Your task to perform on an android device: check google app version Image 0: 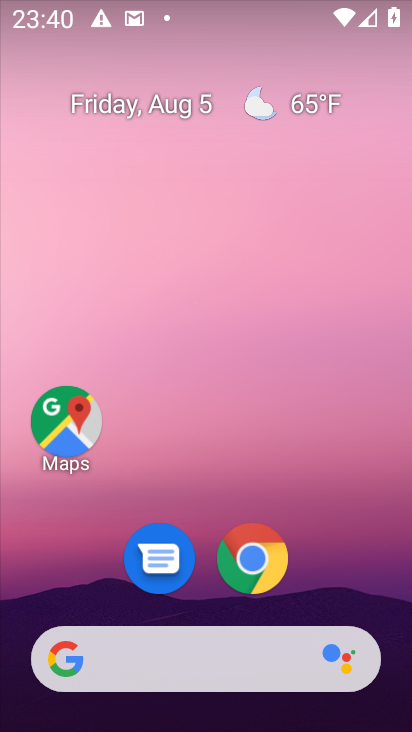
Step 0: drag from (330, 531) to (348, 171)
Your task to perform on an android device: check google app version Image 1: 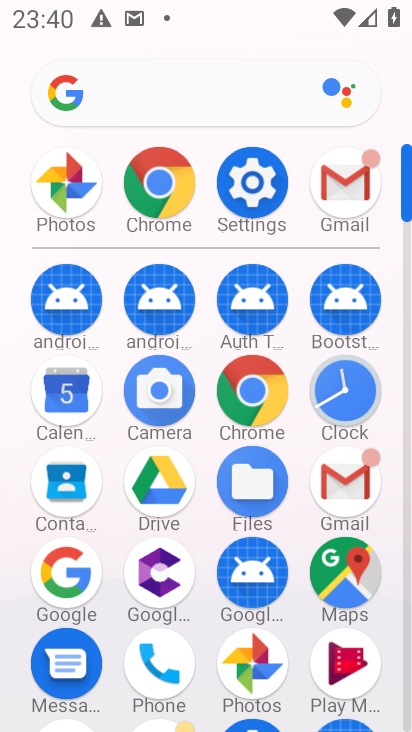
Step 1: click (63, 563)
Your task to perform on an android device: check google app version Image 2: 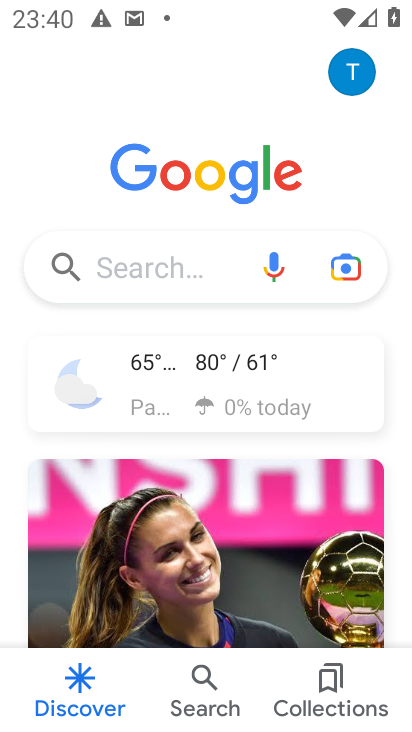
Step 2: click (366, 74)
Your task to perform on an android device: check google app version Image 3: 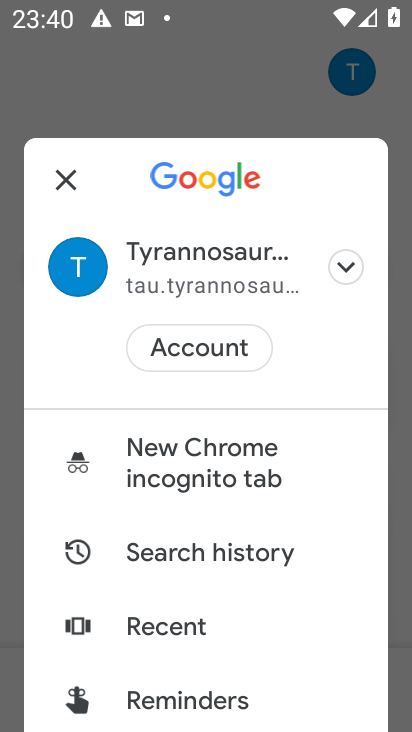
Step 3: drag from (294, 594) to (317, 423)
Your task to perform on an android device: check google app version Image 4: 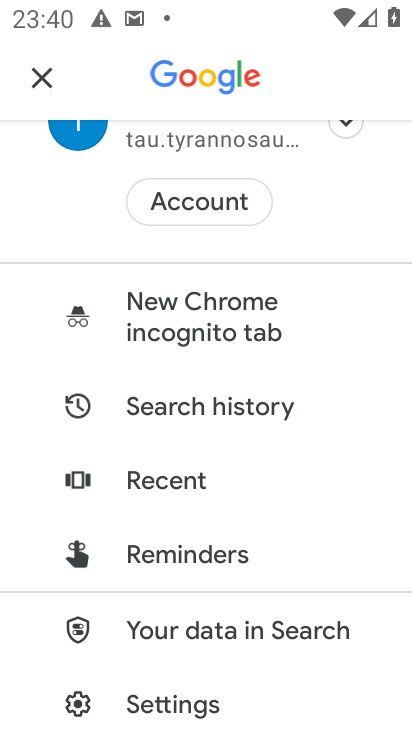
Step 4: drag from (291, 629) to (305, 400)
Your task to perform on an android device: check google app version Image 5: 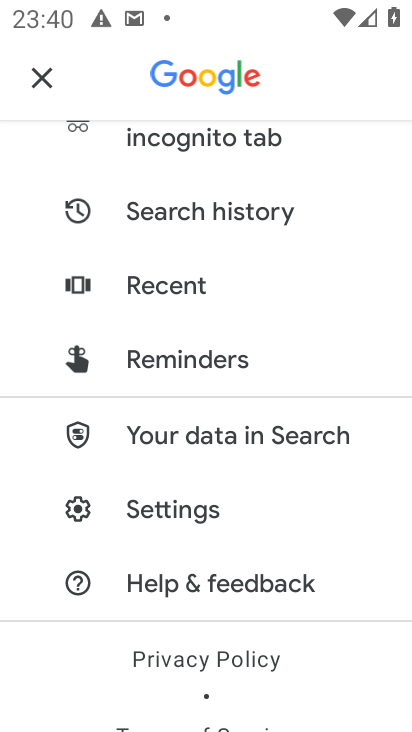
Step 5: click (285, 507)
Your task to perform on an android device: check google app version Image 6: 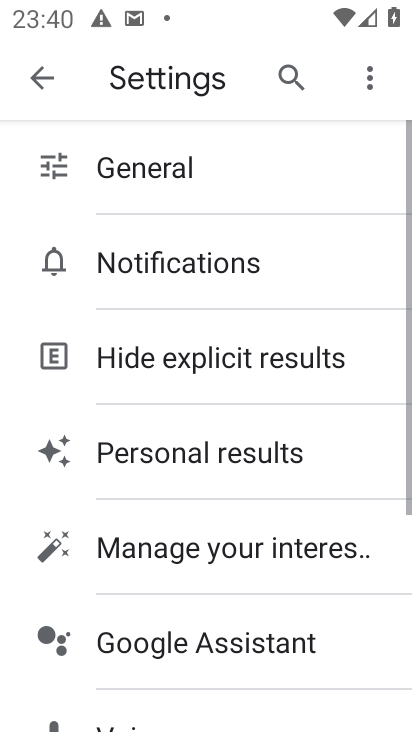
Step 6: drag from (304, 555) to (305, 405)
Your task to perform on an android device: check google app version Image 7: 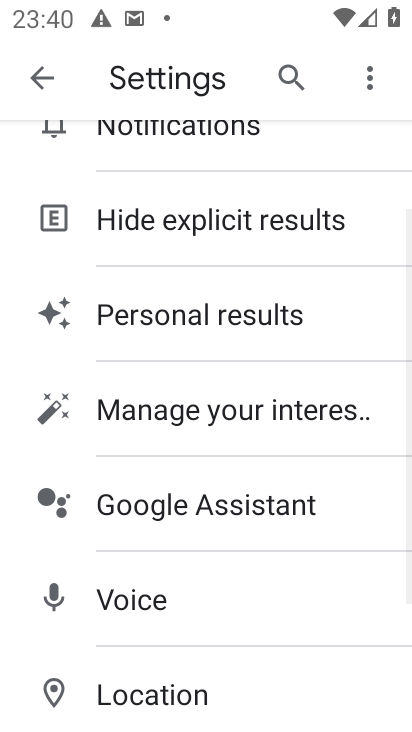
Step 7: drag from (304, 600) to (314, 433)
Your task to perform on an android device: check google app version Image 8: 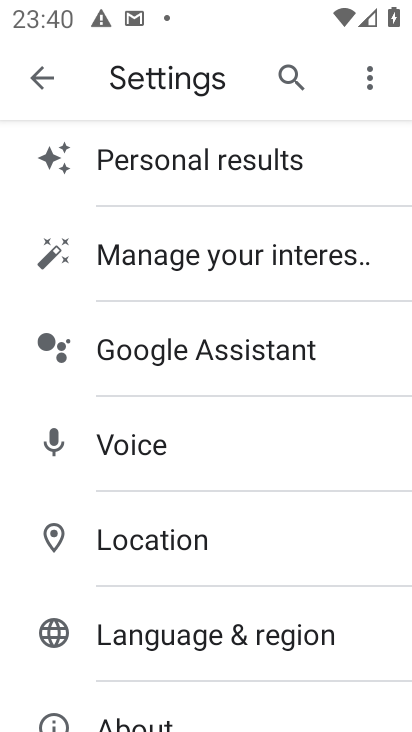
Step 8: drag from (316, 637) to (301, 469)
Your task to perform on an android device: check google app version Image 9: 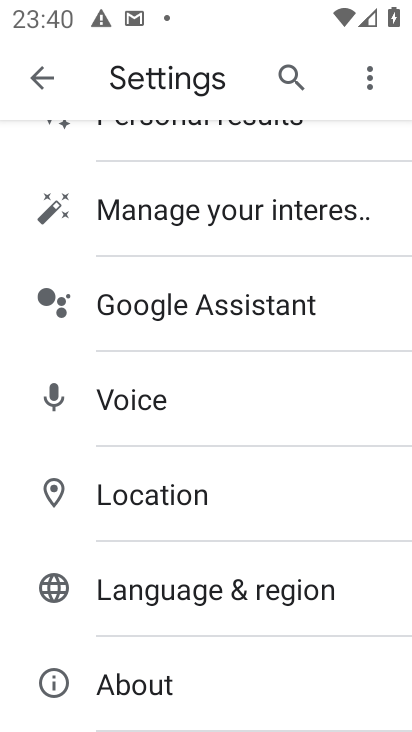
Step 9: click (291, 698)
Your task to perform on an android device: check google app version Image 10: 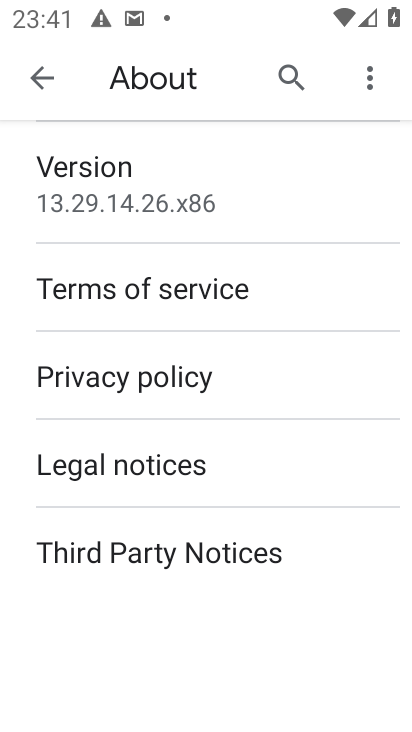
Step 10: task complete